Your task to perform on an android device: Search for Mexican restaurants on Maps Image 0: 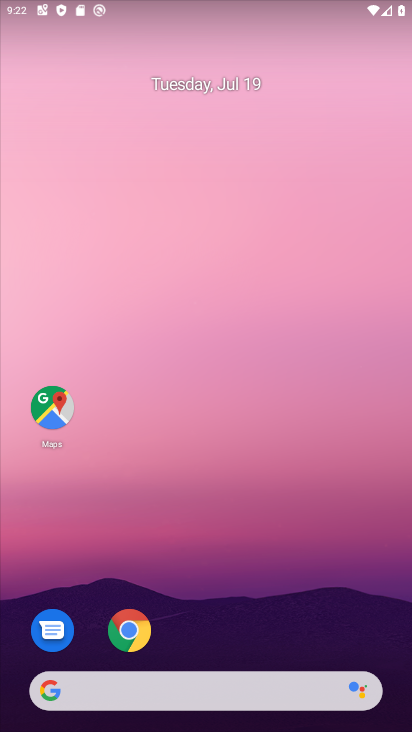
Step 0: click (44, 421)
Your task to perform on an android device: Search for Mexican restaurants on Maps Image 1: 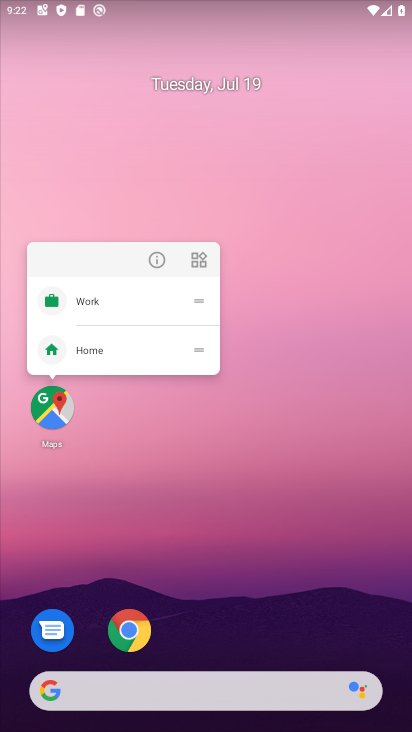
Step 1: click (41, 399)
Your task to perform on an android device: Search for Mexican restaurants on Maps Image 2: 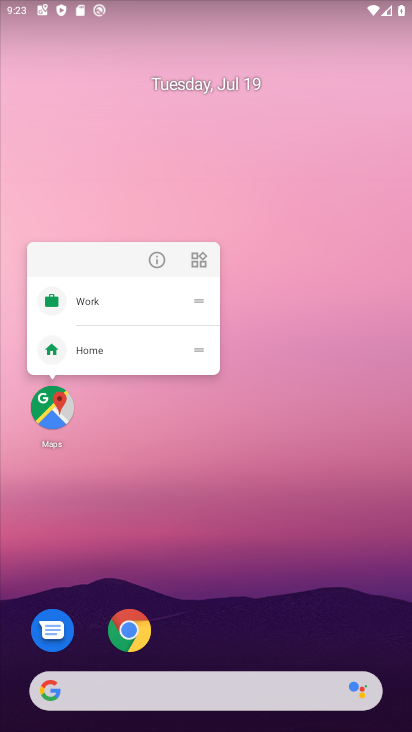
Step 2: click (56, 430)
Your task to perform on an android device: Search for Mexican restaurants on Maps Image 3: 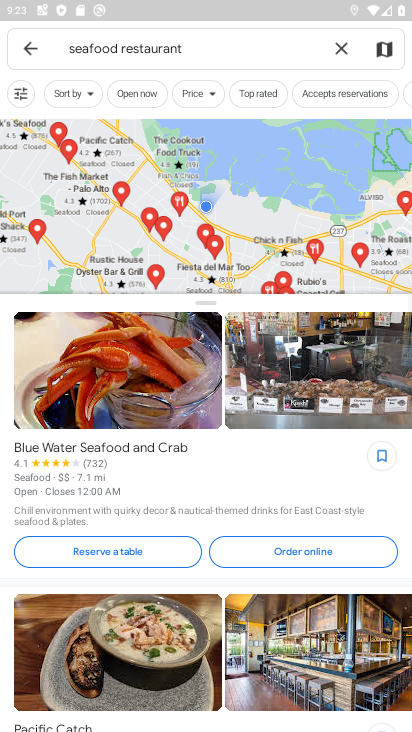
Step 3: click (336, 40)
Your task to perform on an android device: Search for Mexican restaurants on Maps Image 4: 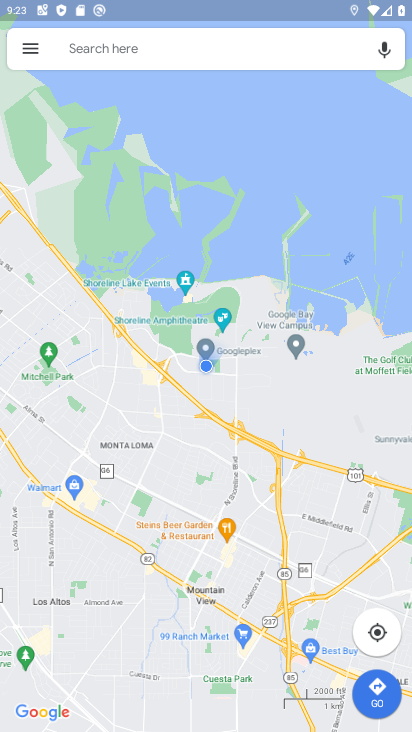
Step 4: click (180, 61)
Your task to perform on an android device: Search for Mexican restaurants on Maps Image 5: 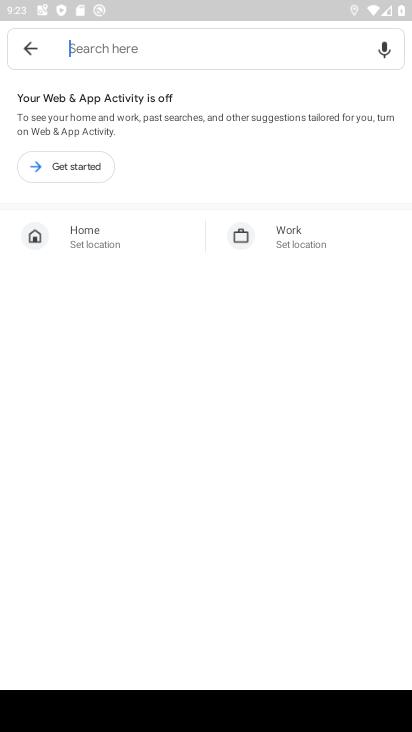
Step 5: type "mexican retaurants"
Your task to perform on an android device: Search for Mexican restaurants on Maps Image 6: 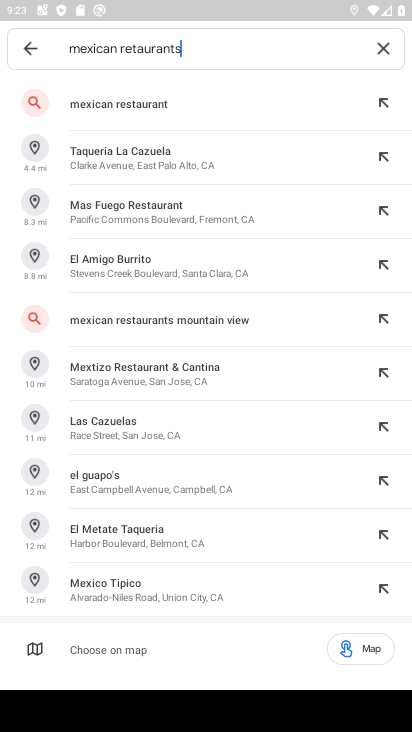
Step 6: click (140, 115)
Your task to perform on an android device: Search for Mexican restaurants on Maps Image 7: 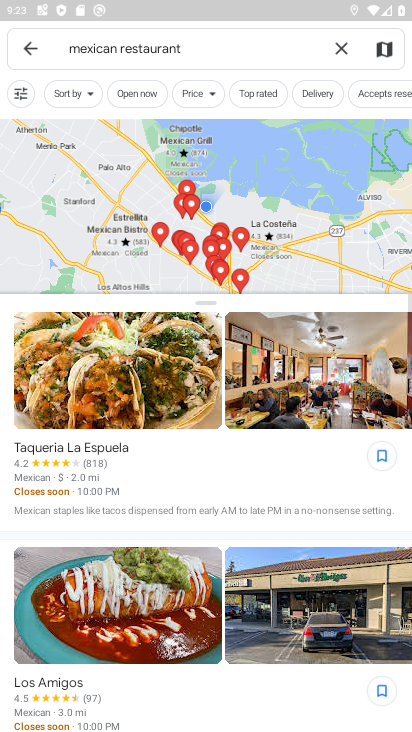
Step 7: task complete